Your task to perform on an android device: Open Maps and search for coffee Image 0: 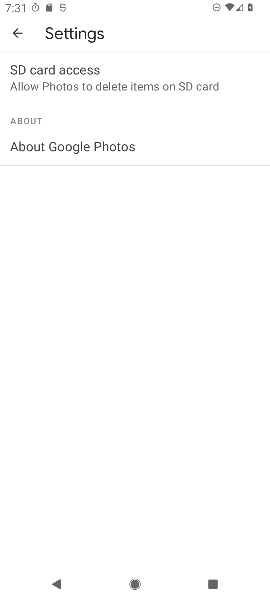
Step 0: press home button
Your task to perform on an android device: Open Maps and search for coffee Image 1: 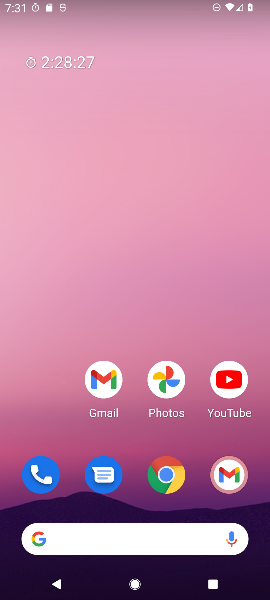
Step 1: drag from (68, 431) to (52, 166)
Your task to perform on an android device: Open Maps and search for coffee Image 2: 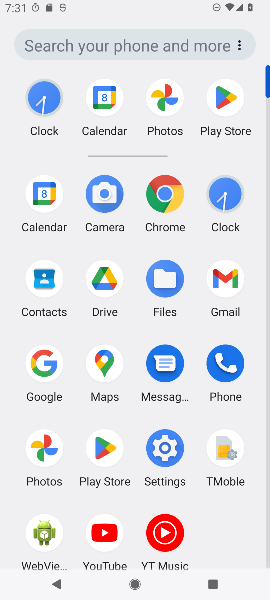
Step 2: click (100, 369)
Your task to perform on an android device: Open Maps and search for coffee Image 3: 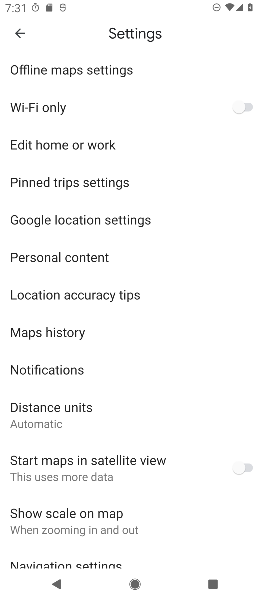
Step 3: press back button
Your task to perform on an android device: Open Maps and search for coffee Image 4: 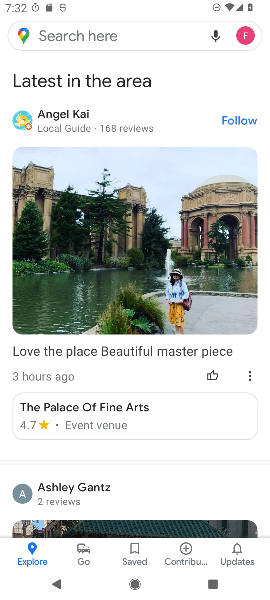
Step 4: click (150, 30)
Your task to perform on an android device: Open Maps and search for coffee Image 5: 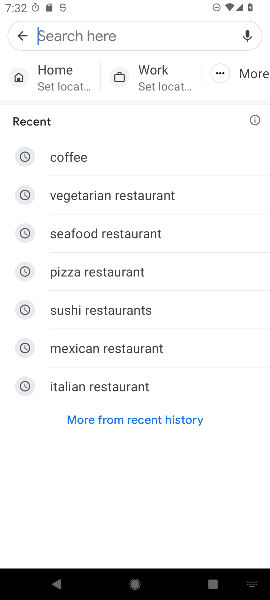
Step 5: type "coffee"
Your task to perform on an android device: Open Maps and search for coffee Image 6: 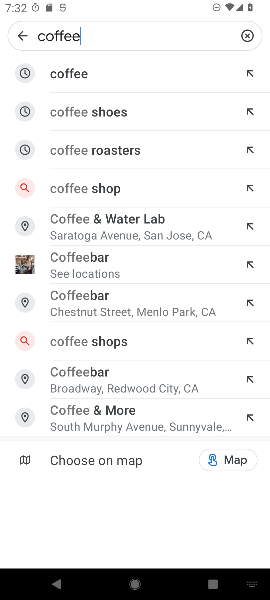
Step 6: click (144, 76)
Your task to perform on an android device: Open Maps and search for coffee Image 7: 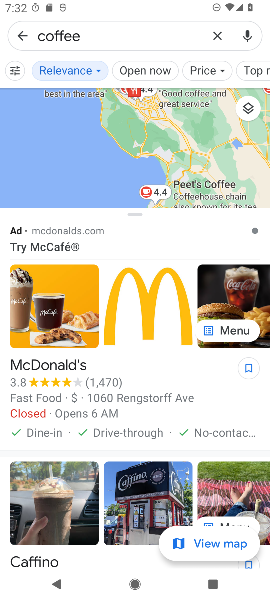
Step 7: task complete